Your task to perform on an android device: Open location settings Image 0: 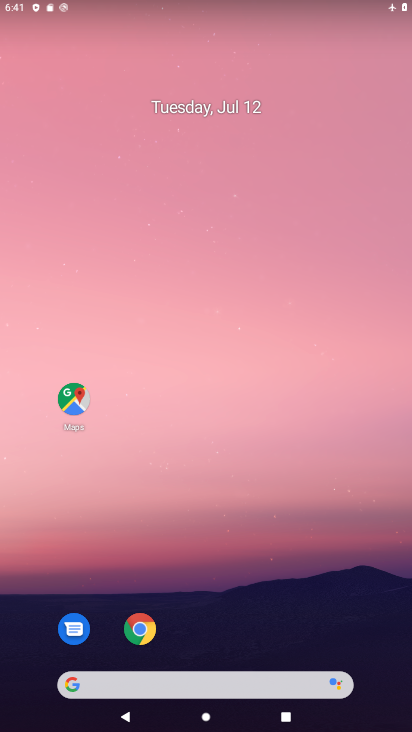
Step 0: drag from (256, 553) to (181, 33)
Your task to perform on an android device: Open location settings Image 1: 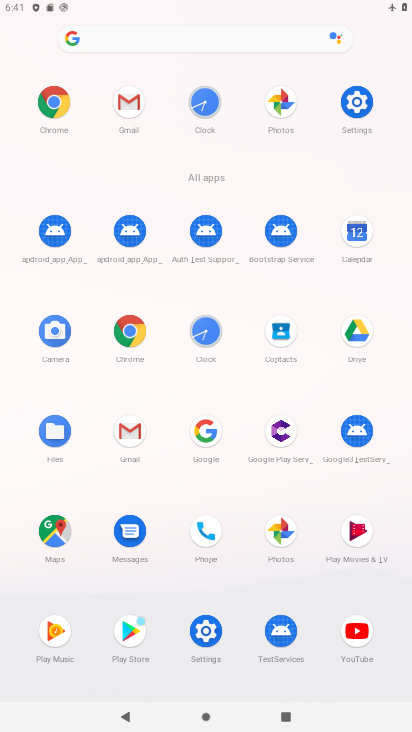
Step 1: click (354, 98)
Your task to perform on an android device: Open location settings Image 2: 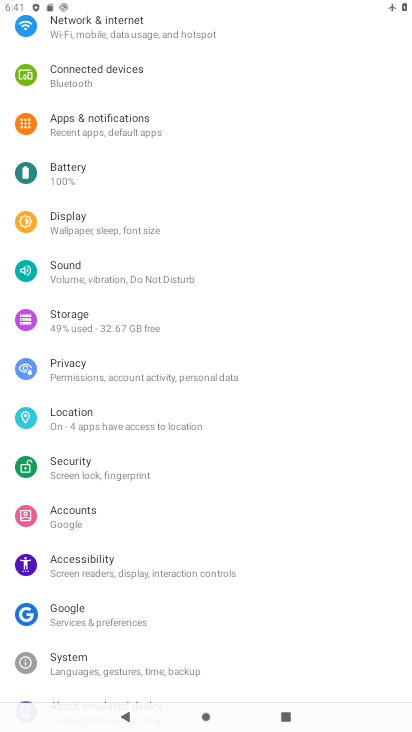
Step 2: click (69, 411)
Your task to perform on an android device: Open location settings Image 3: 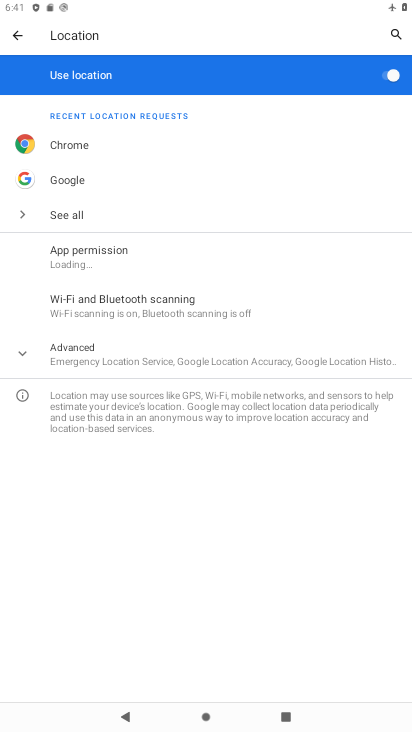
Step 3: task complete